Your task to perform on an android device: What's the weather going to be tomorrow? Image 0: 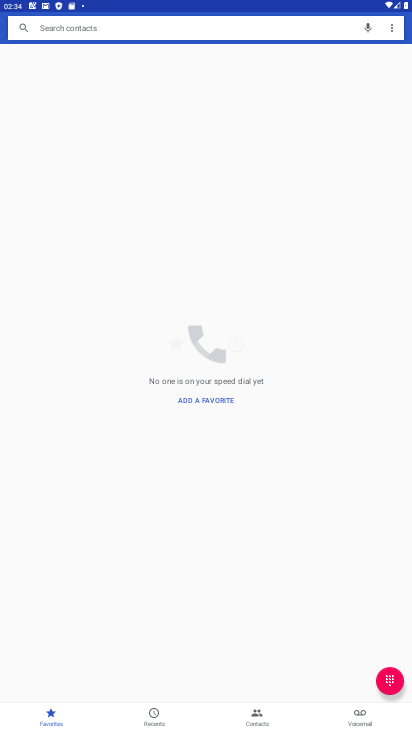
Step 0: press home button
Your task to perform on an android device: What's the weather going to be tomorrow? Image 1: 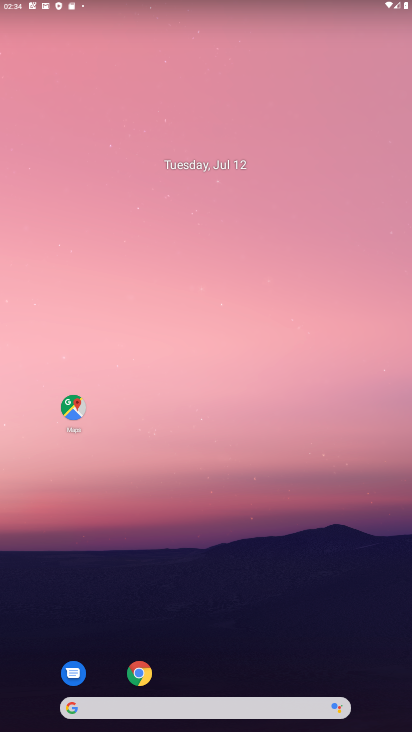
Step 1: click (209, 707)
Your task to perform on an android device: What's the weather going to be tomorrow? Image 2: 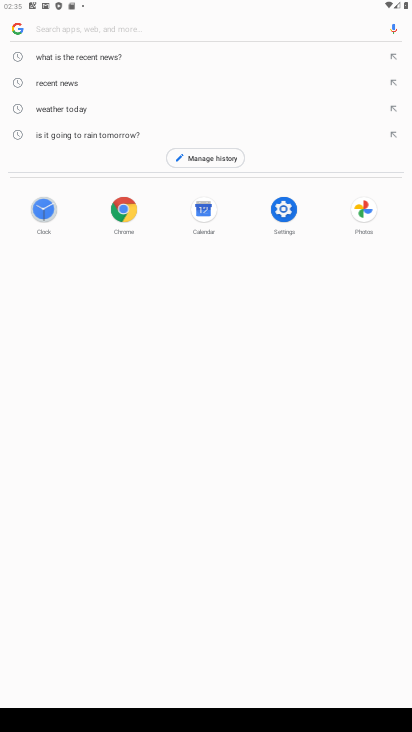
Step 2: type "What's the weather going to be tomorrow?"
Your task to perform on an android device: What's the weather going to be tomorrow? Image 3: 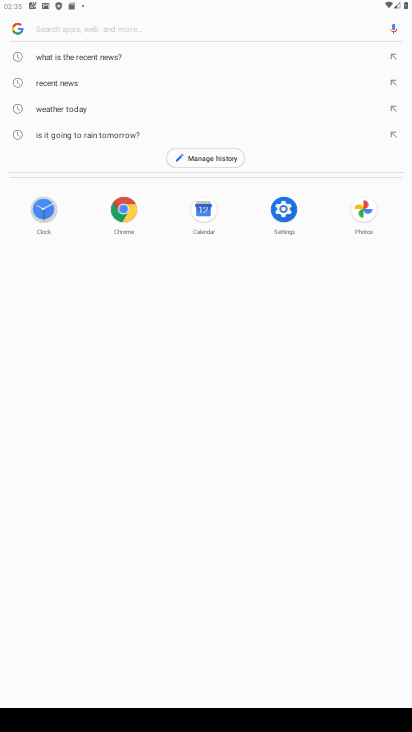
Step 3: click (100, 28)
Your task to perform on an android device: What's the weather going to be tomorrow? Image 4: 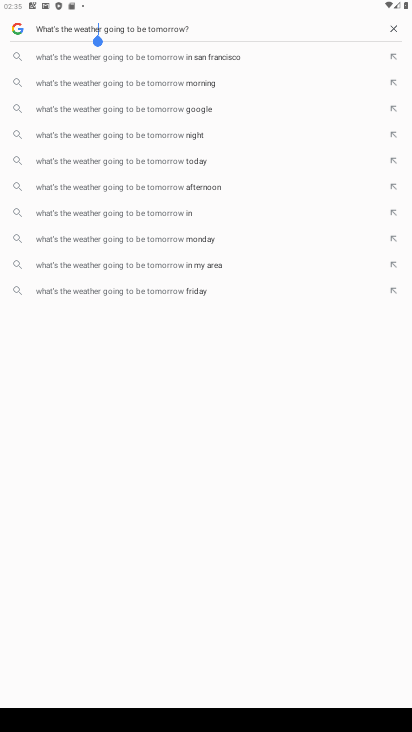
Step 4: click (92, 27)
Your task to perform on an android device: What's the weather going to be tomorrow? Image 5: 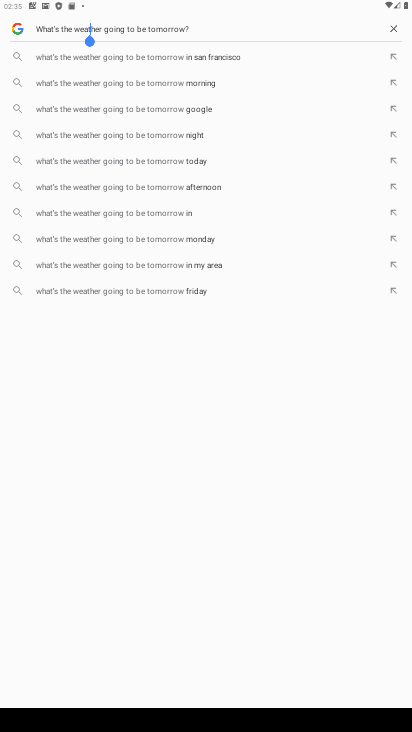
Step 5: press enter
Your task to perform on an android device: What's the weather going to be tomorrow? Image 6: 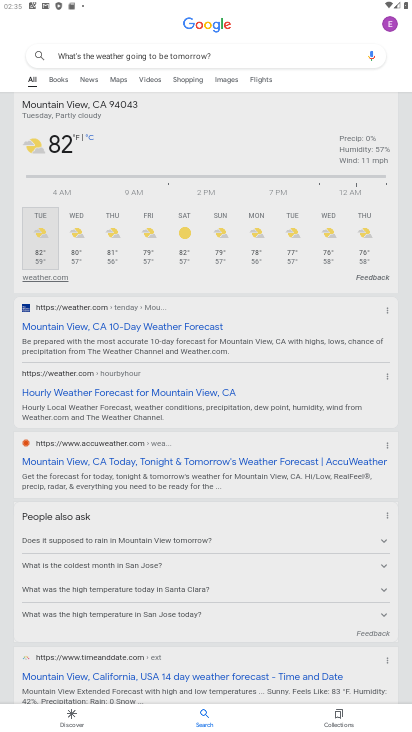
Step 6: task complete